Your task to perform on an android device: Go to network settings Image 0: 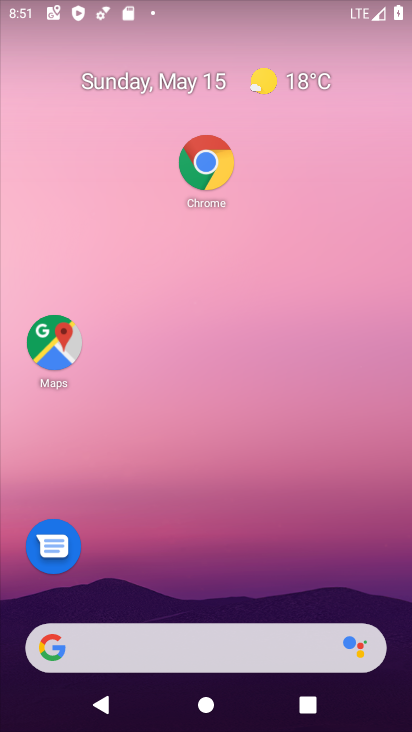
Step 0: drag from (242, 582) to (303, 256)
Your task to perform on an android device: Go to network settings Image 1: 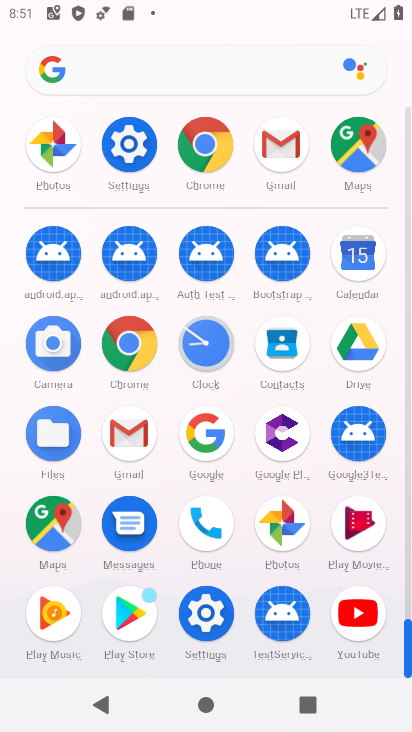
Step 1: click (125, 146)
Your task to perform on an android device: Go to network settings Image 2: 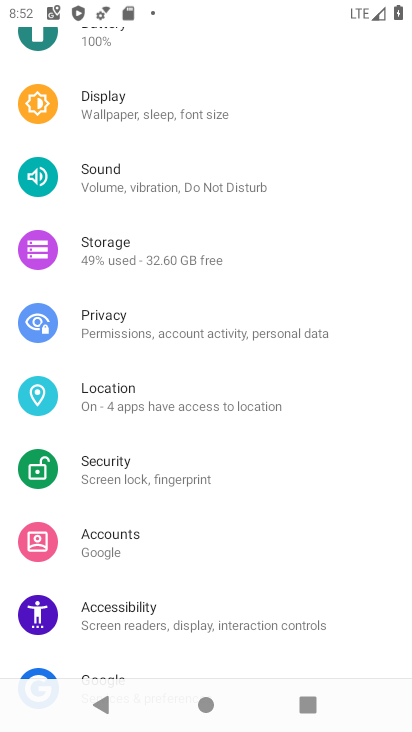
Step 2: drag from (129, 140) to (155, 614)
Your task to perform on an android device: Go to network settings Image 3: 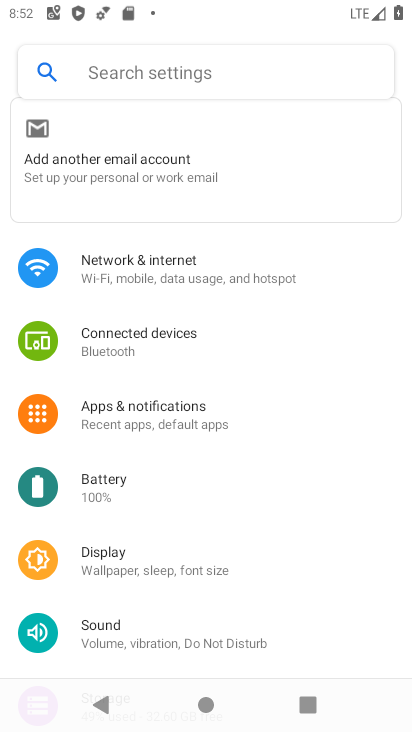
Step 3: click (143, 274)
Your task to perform on an android device: Go to network settings Image 4: 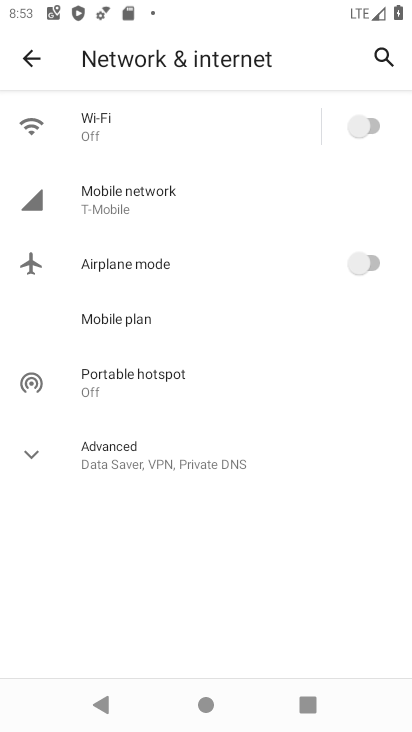
Step 4: task complete